Your task to perform on an android device: Search for good Japanese restaurants Image 0: 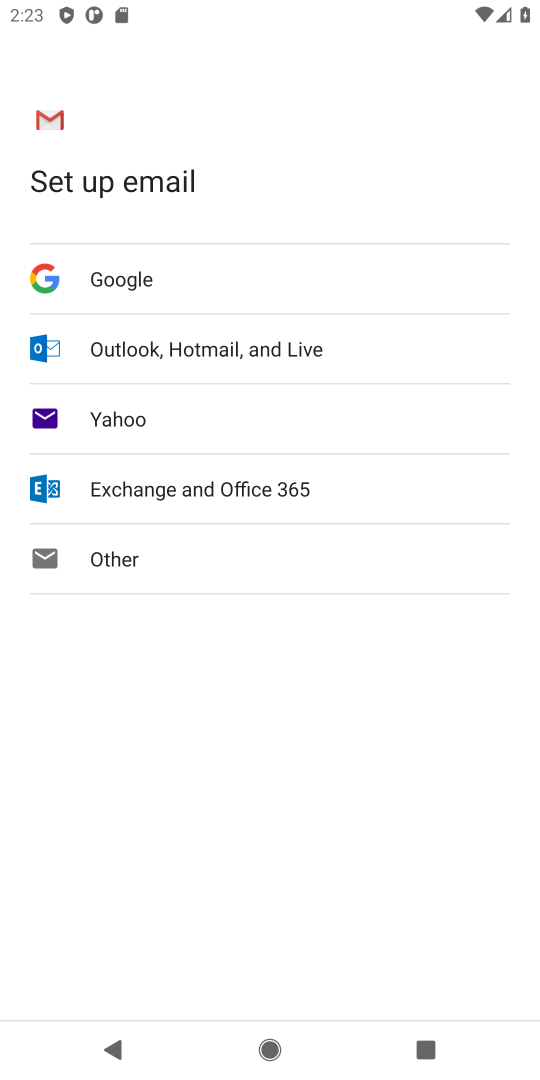
Step 0: press home button
Your task to perform on an android device: Search for good Japanese restaurants Image 1: 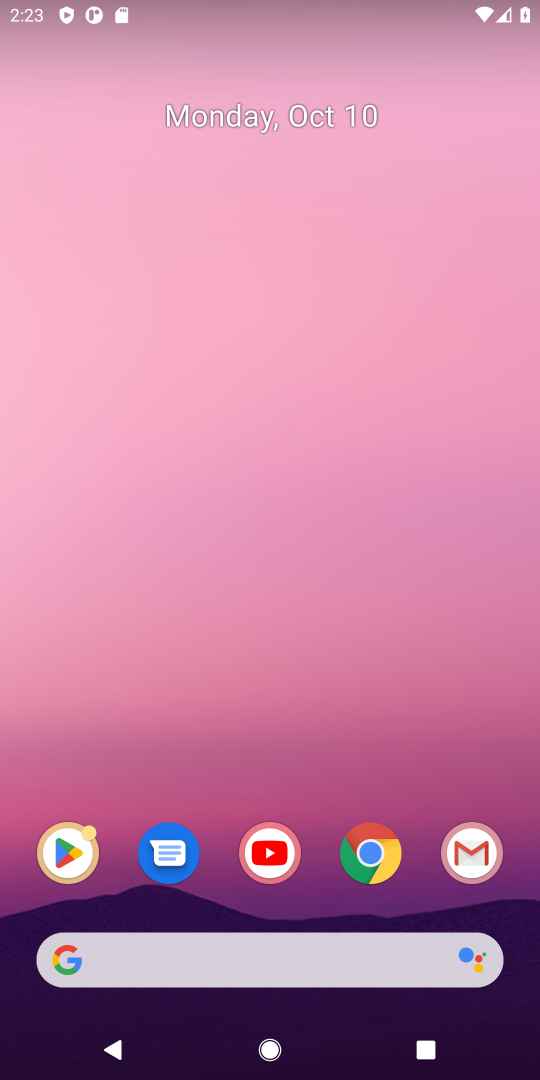
Step 1: click (367, 842)
Your task to perform on an android device: Search for good Japanese restaurants Image 2: 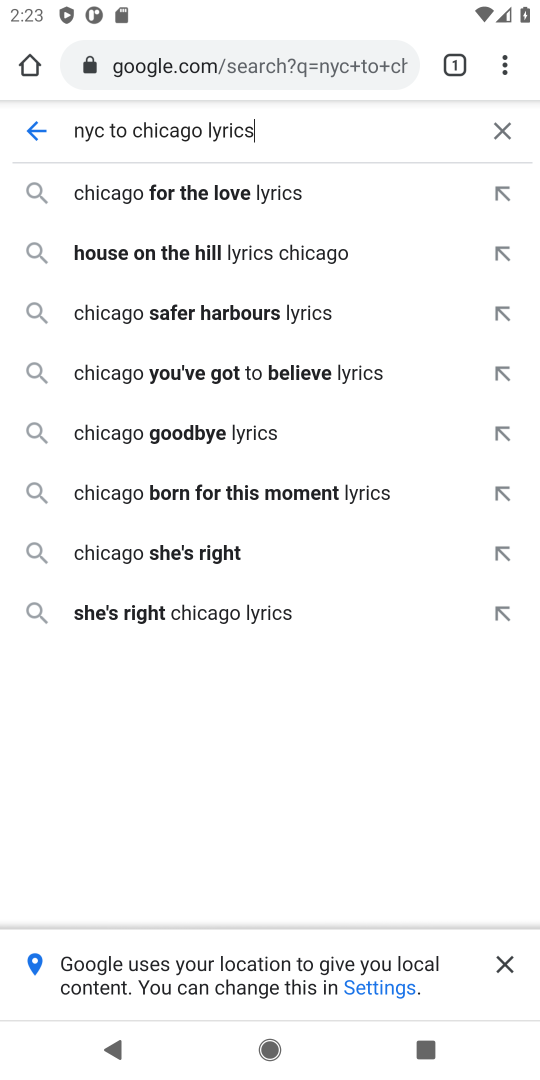
Step 2: click (276, 72)
Your task to perform on an android device: Search for good Japanese restaurants Image 3: 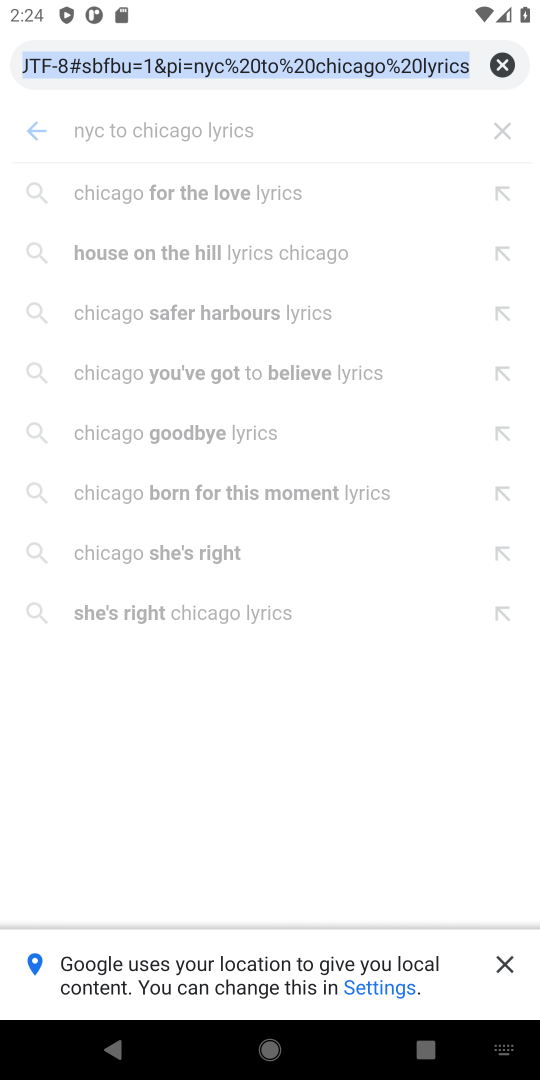
Step 3: type "good japanese restaurant"
Your task to perform on an android device: Search for good Japanese restaurants Image 4: 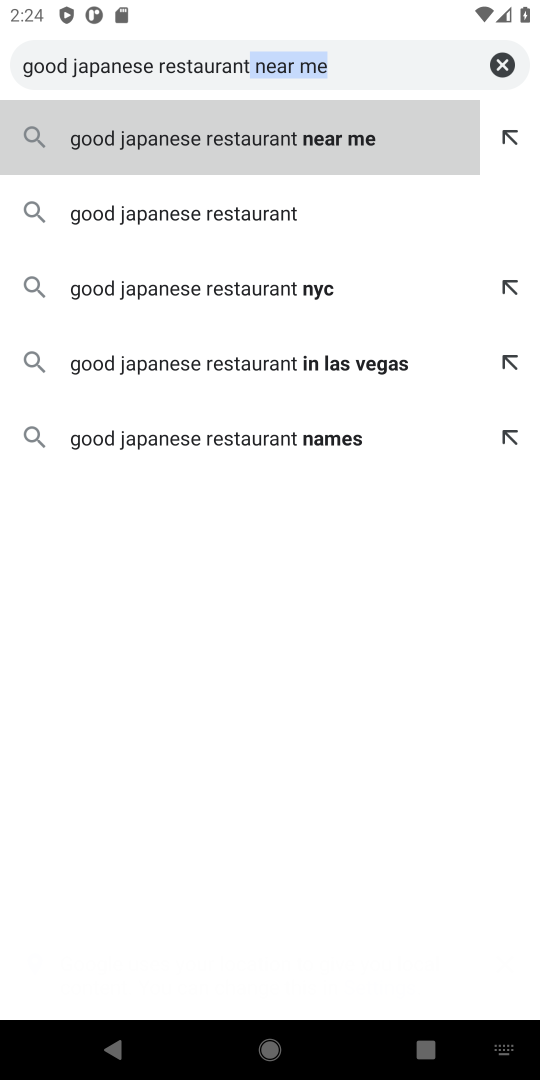
Step 4: click (93, 218)
Your task to perform on an android device: Search for good Japanese restaurants Image 5: 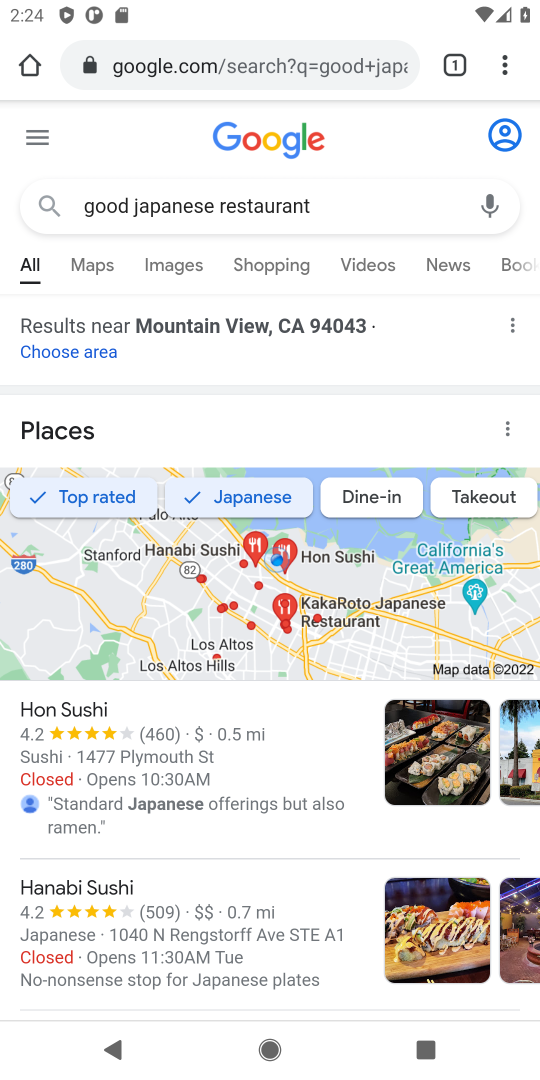
Step 5: task complete